Your task to perform on an android device: Go to internet settings Image 0: 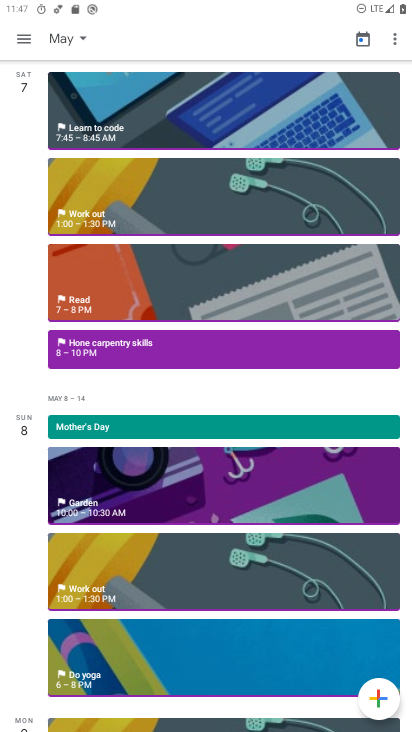
Step 0: press home button
Your task to perform on an android device: Go to internet settings Image 1: 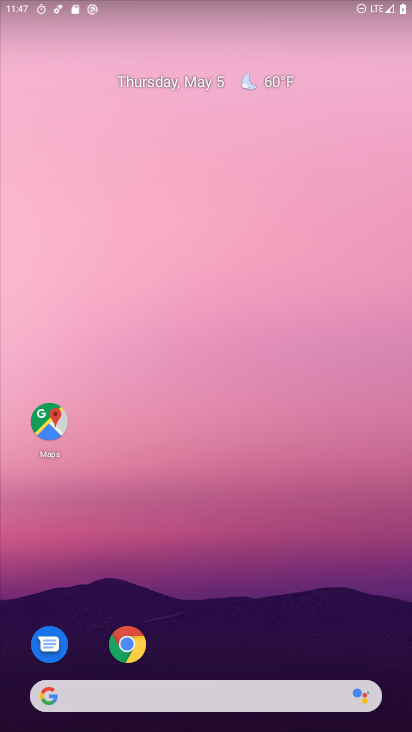
Step 1: drag from (351, 556) to (362, 100)
Your task to perform on an android device: Go to internet settings Image 2: 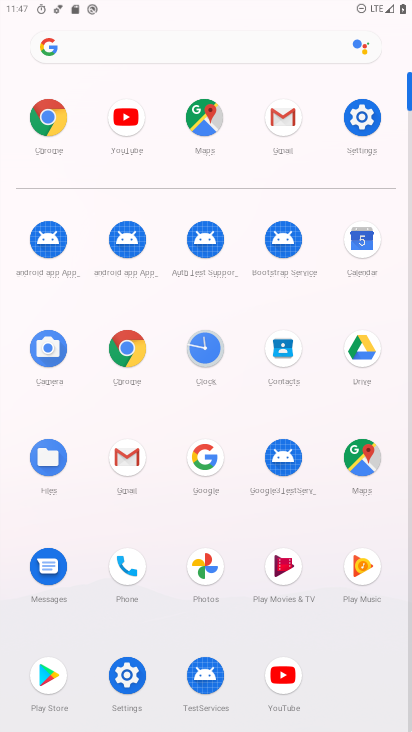
Step 2: click (356, 119)
Your task to perform on an android device: Go to internet settings Image 3: 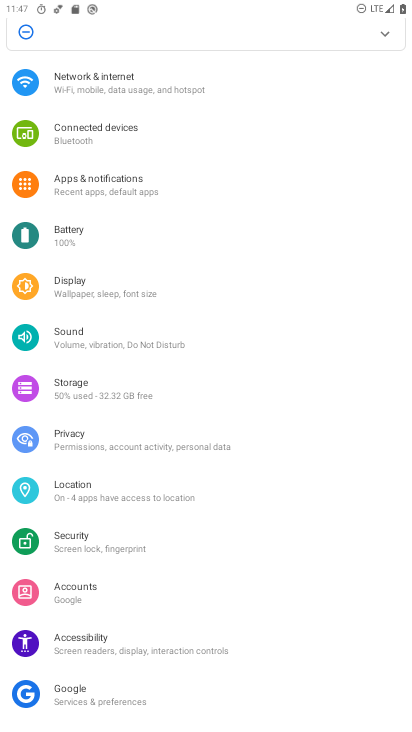
Step 3: click (221, 83)
Your task to perform on an android device: Go to internet settings Image 4: 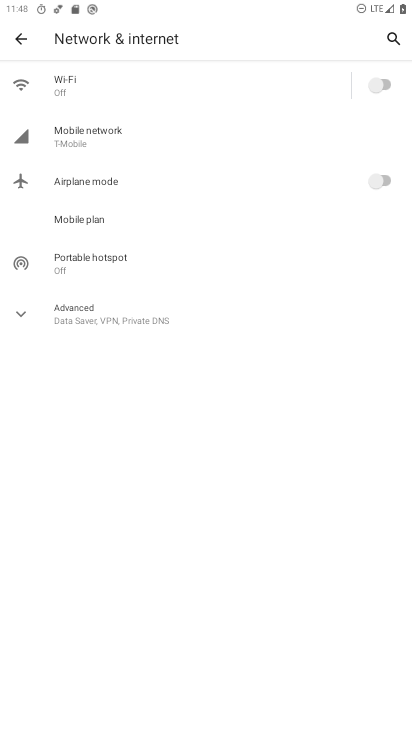
Step 4: click (97, 144)
Your task to perform on an android device: Go to internet settings Image 5: 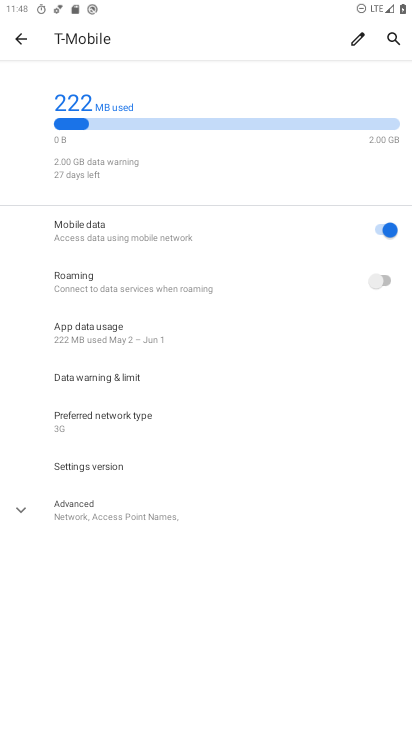
Step 5: task complete